Your task to perform on an android device: change text size in settings app Image 0: 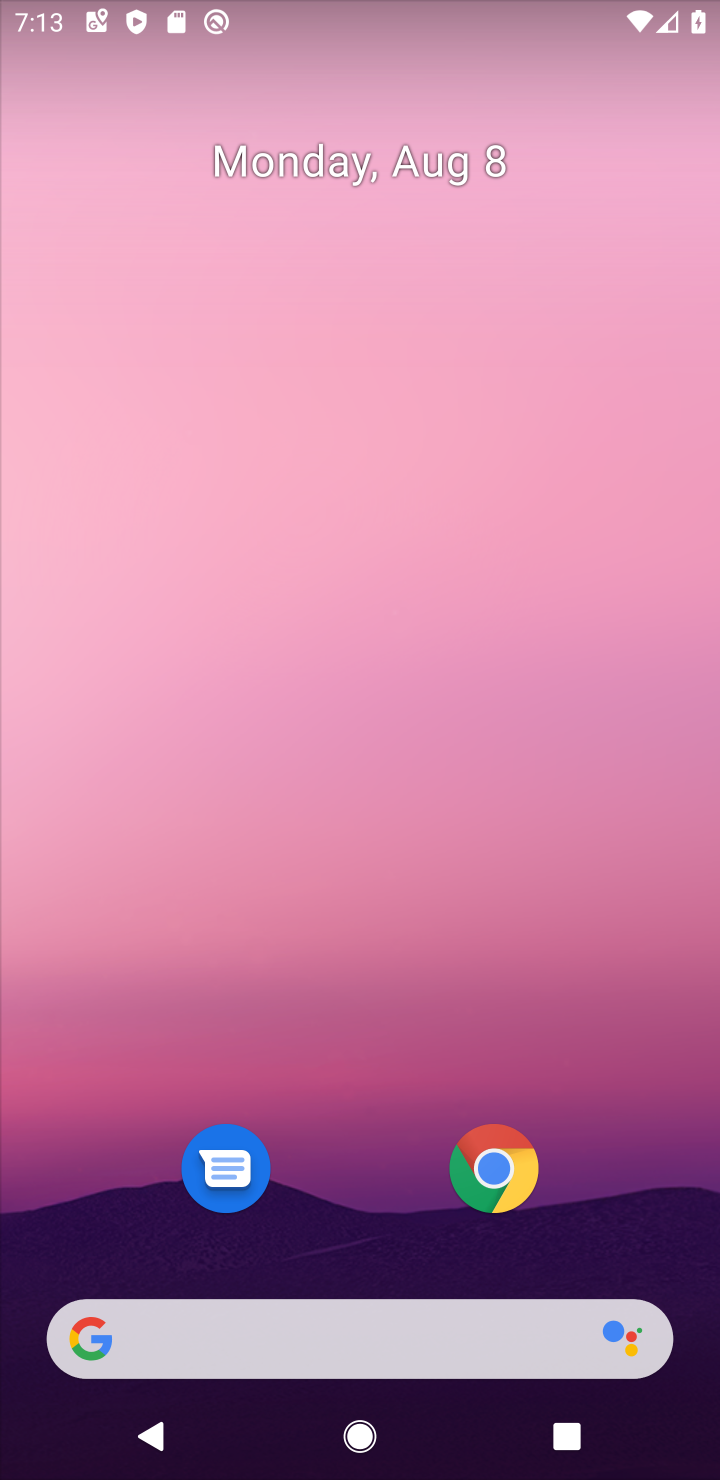
Step 0: drag from (645, 1153) to (472, 41)
Your task to perform on an android device: change text size in settings app Image 1: 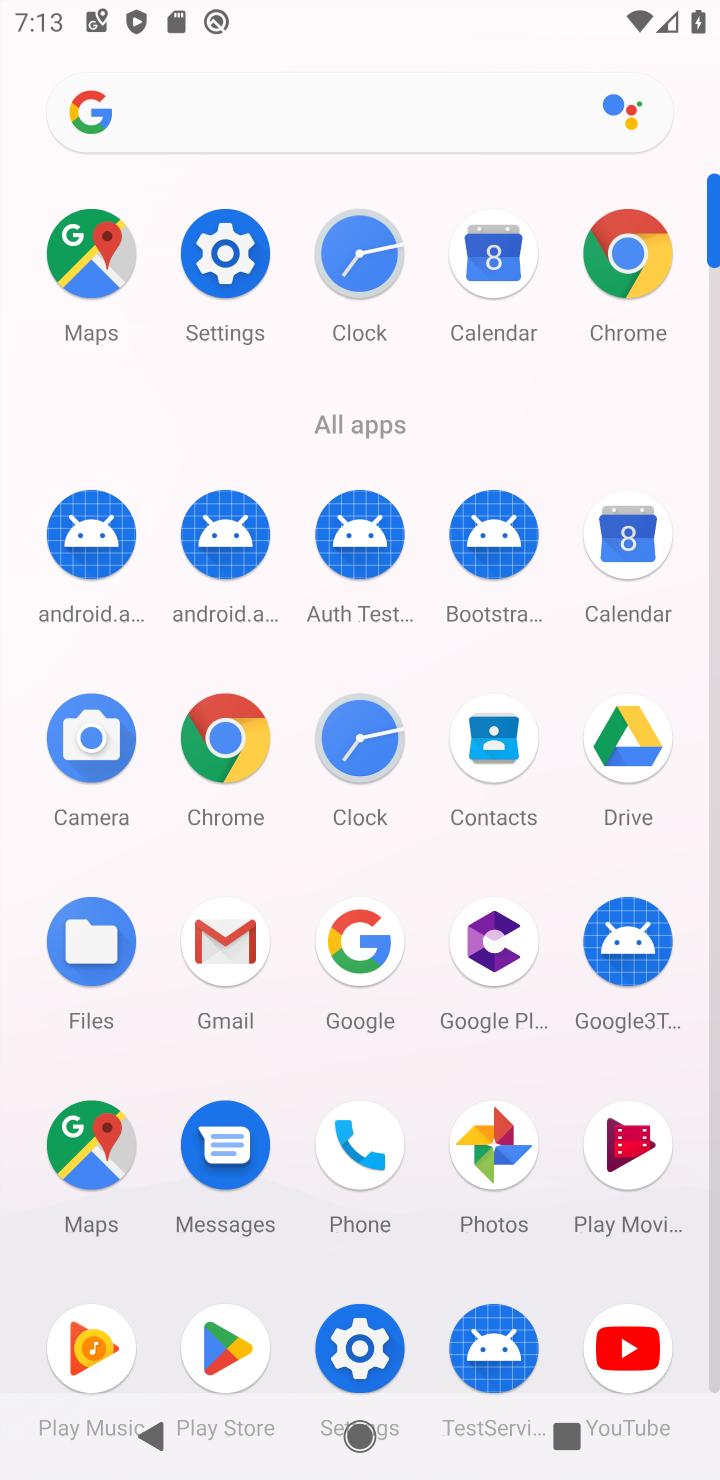
Step 1: click (377, 1349)
Your task to perform on an android device: change text size in settings app Image 2: 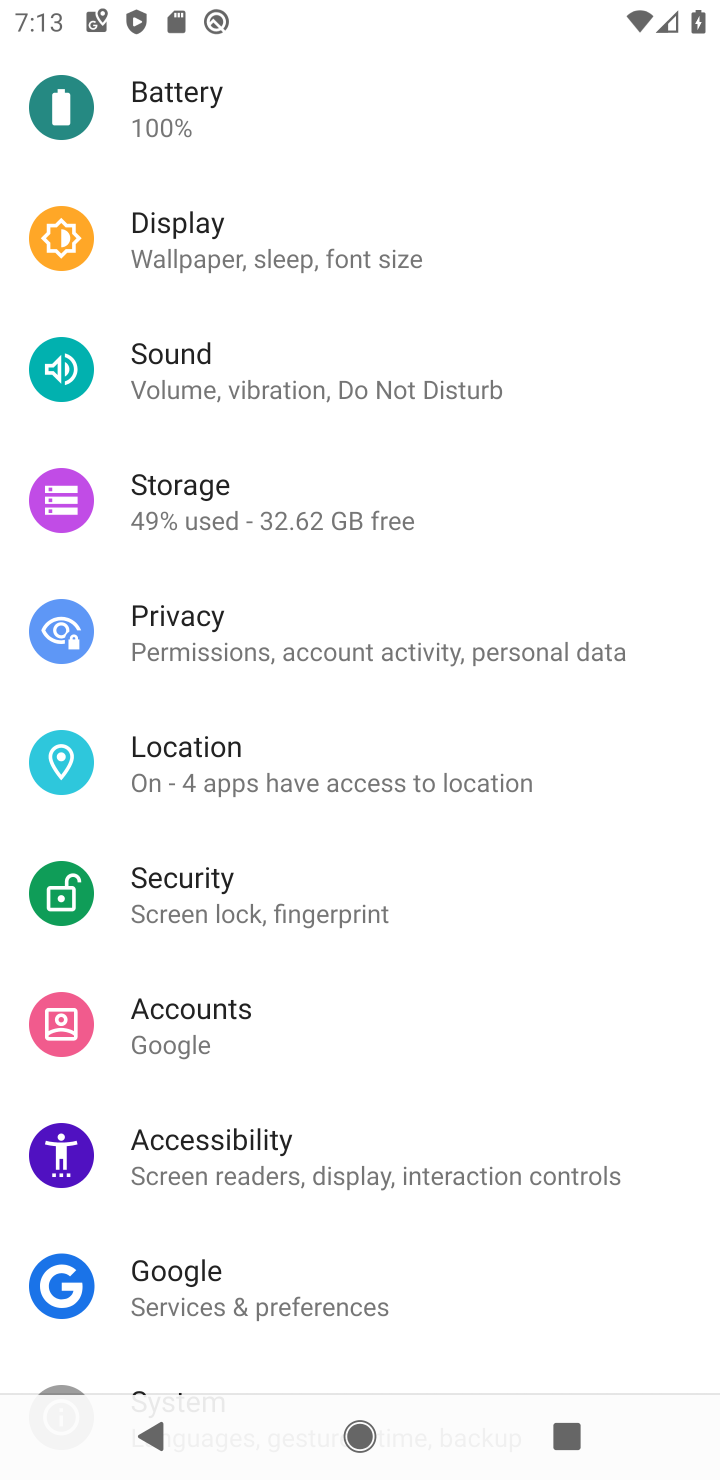
Step 2: click (230, 234)
Your task to perform on an android device: change text size in settings app Image 3: 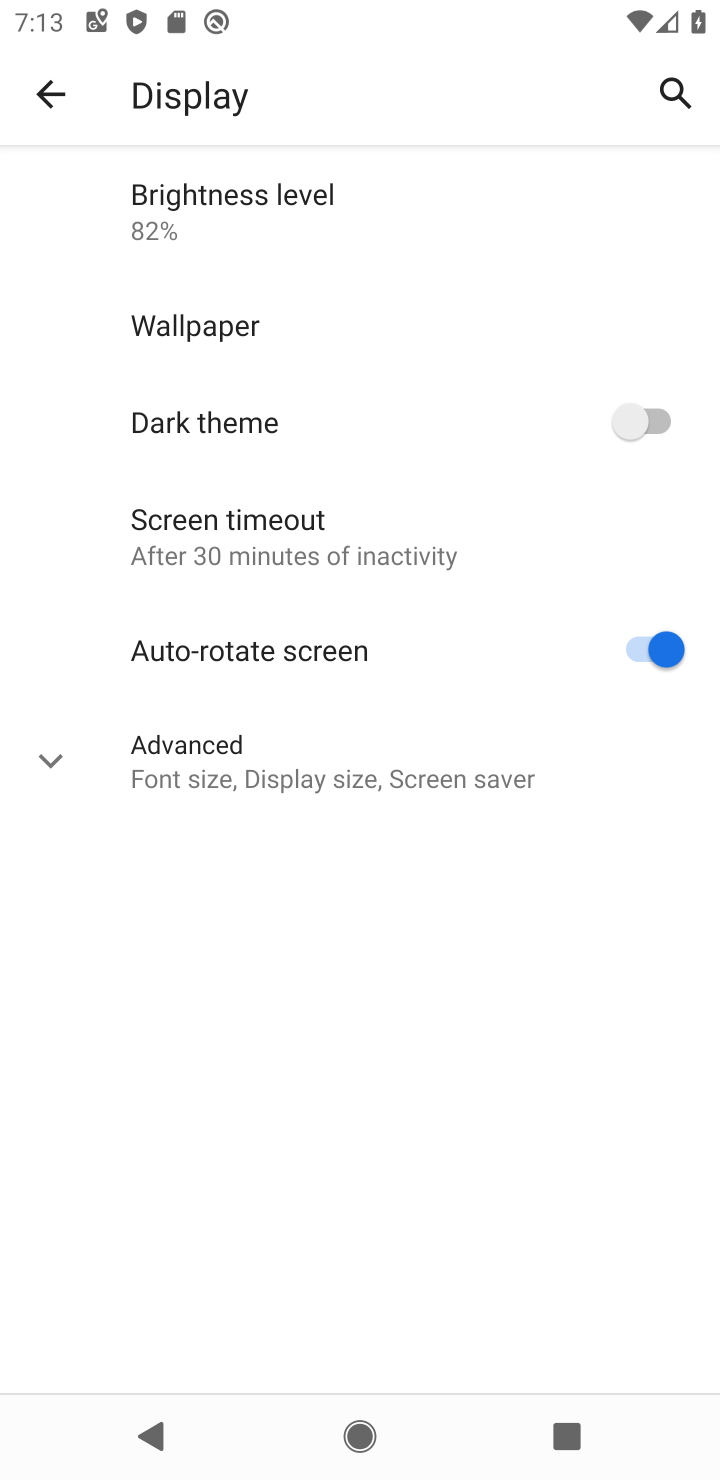
Step 3: click (211, 747)
Your task to perform on an android device: change text size in settings app Image 4: 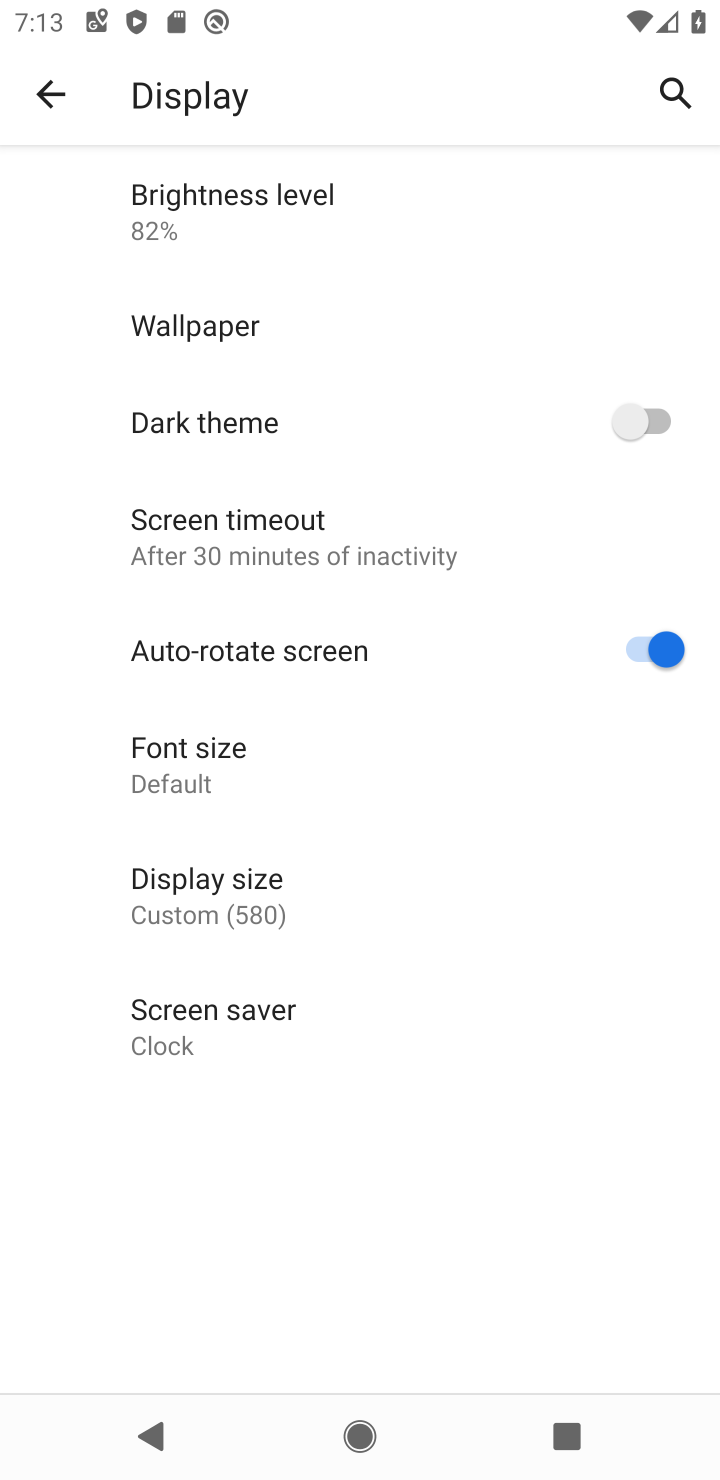
Step 4: click (157, 777)
Your task to perform on an android device: change text size in settings app Image 5: 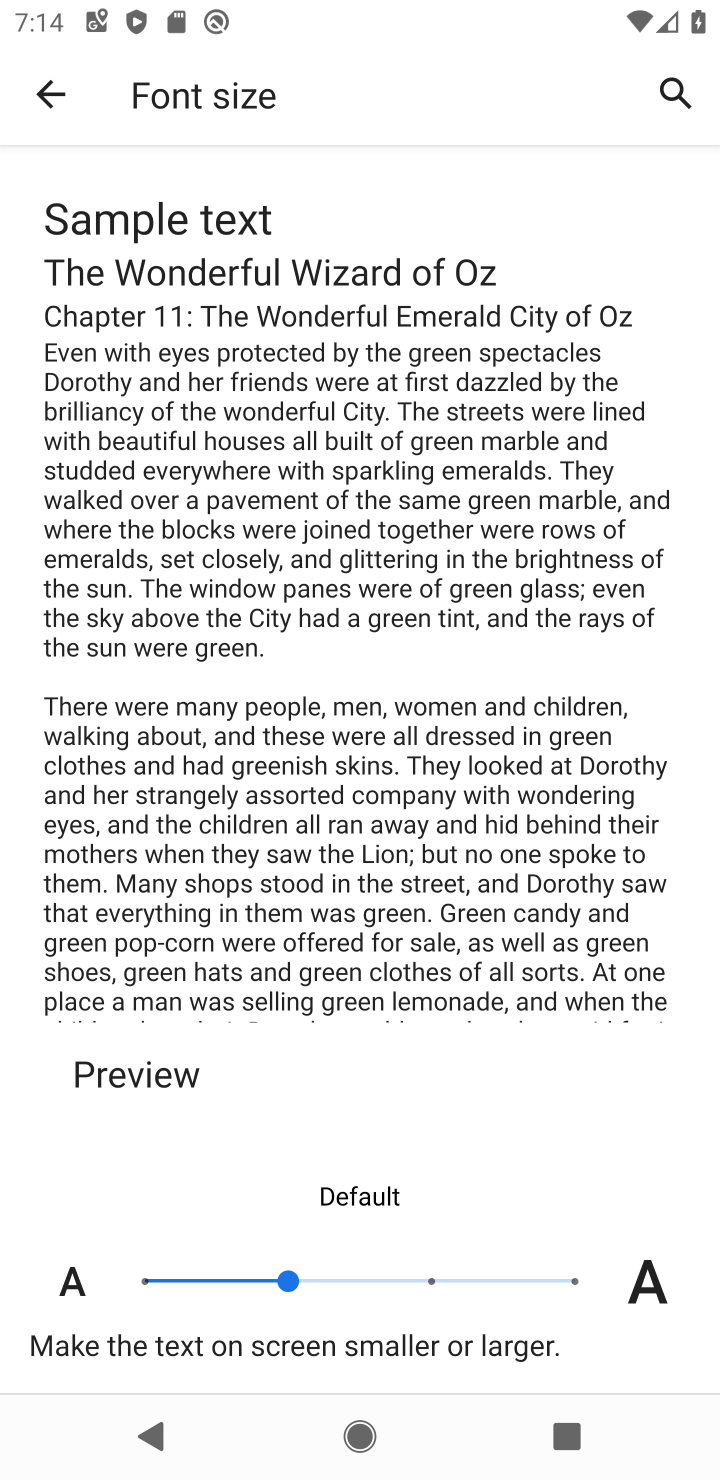
Step 5: click (425, 1245)
Your task to perform on an android device: change text size in settings app Image 6: 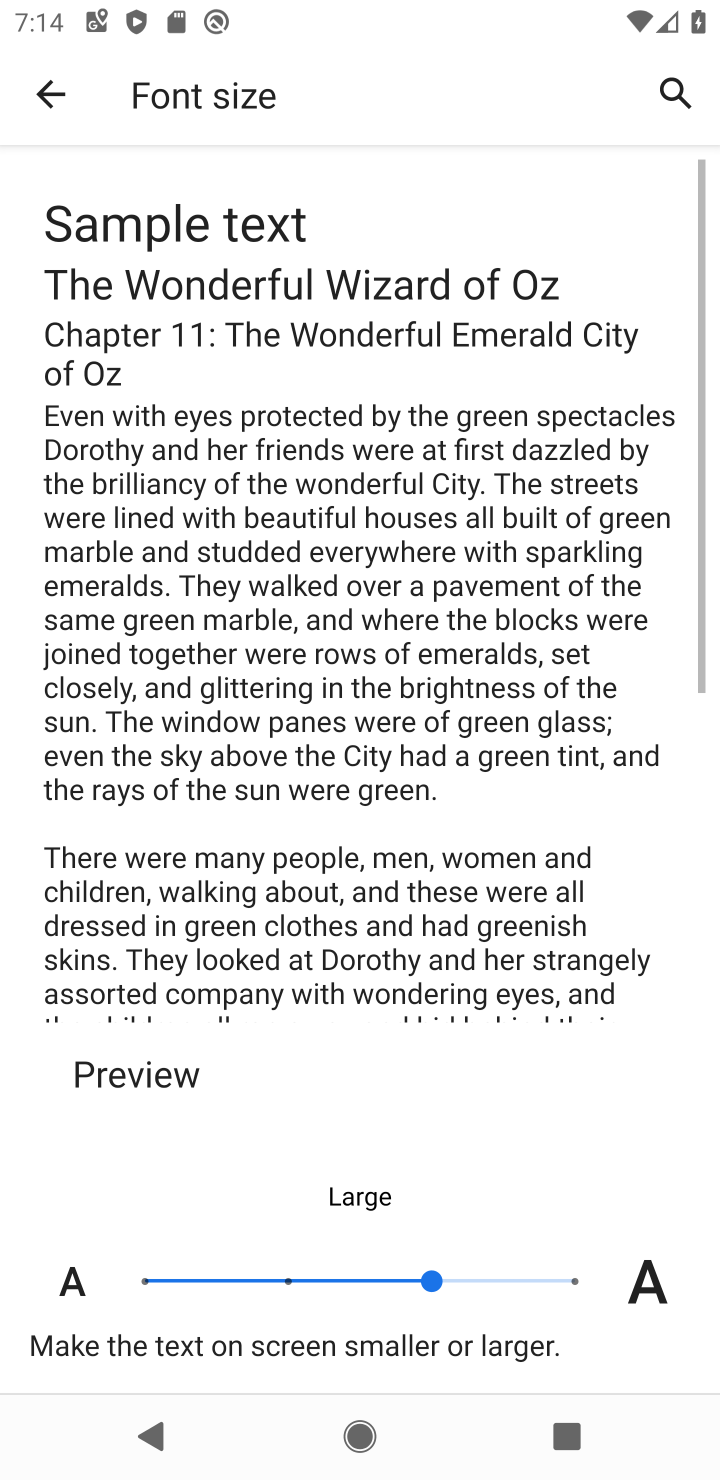
Step 6: click (568, 1276)
Your task to perform on an android device: change text size in settings app Image 7: 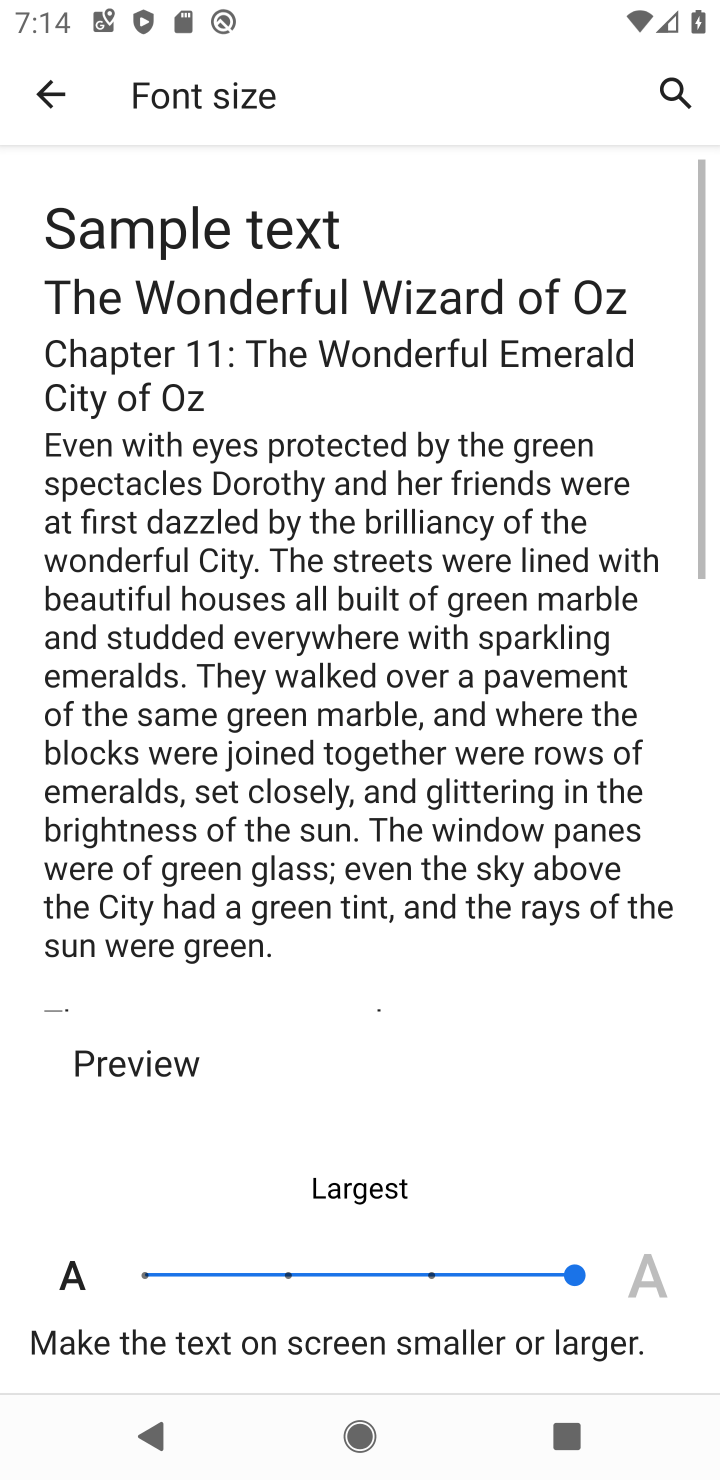
Step 7: task complete